Your task to perform on an android device: move a message to another label in the gmail app Image 0: 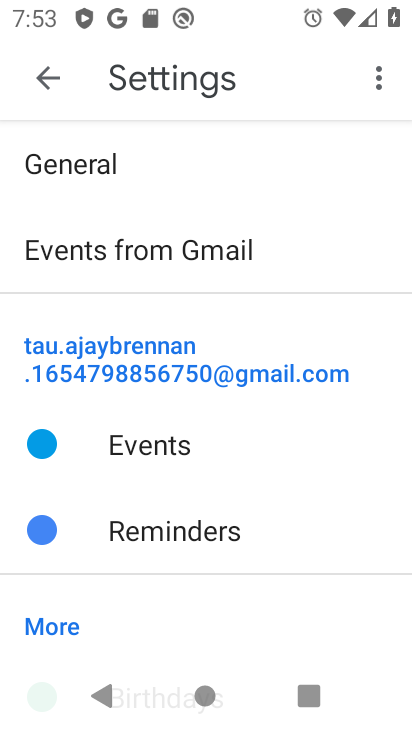
Step 0: press home button
Your task to perform on an android device: move a message to another label in the gmail app Image 1: 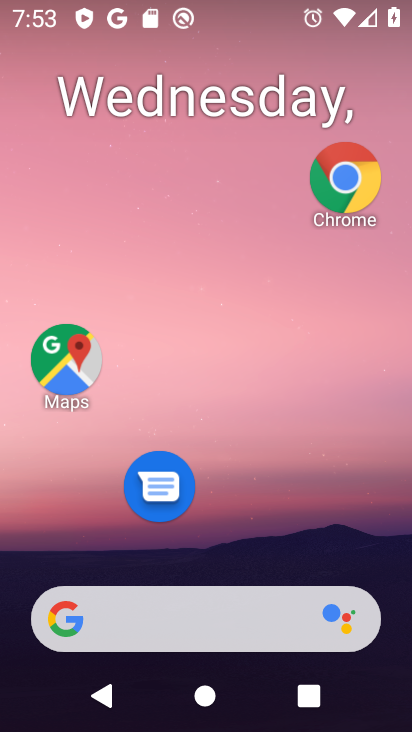
Step 1: drag from (274, 592) to (281, 180)
Your task to perform on an android device: move a message to another label in the gmail app Image 2: 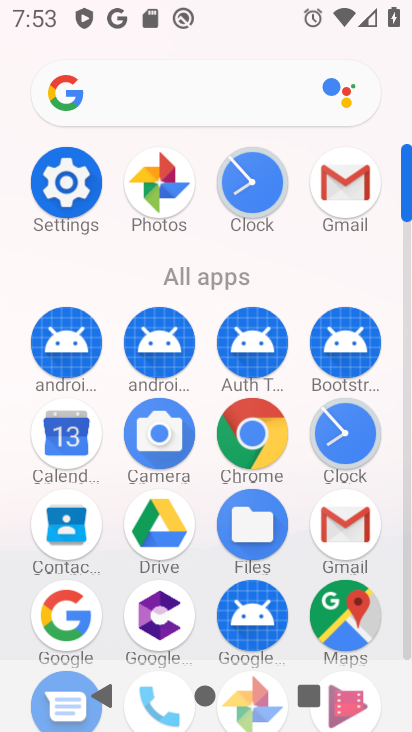
Step 2: click (353, 215)
Your task to perform on an android device: move a message to another label in the gmail app Image 3: 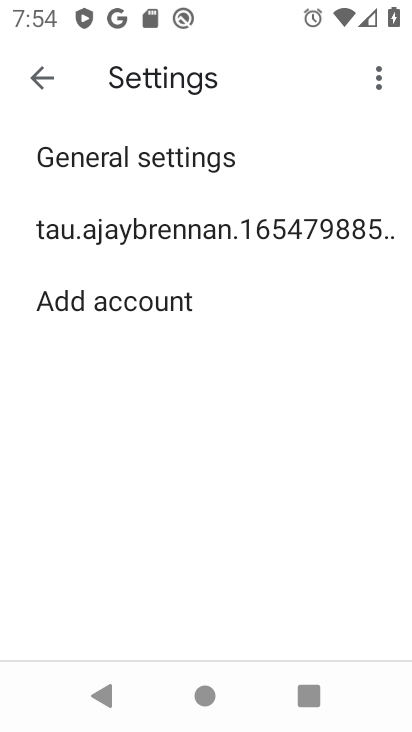
Step 3: click (43, 97)
Your task to perform on an android device: move a message to another label in the gmail app Image 4: 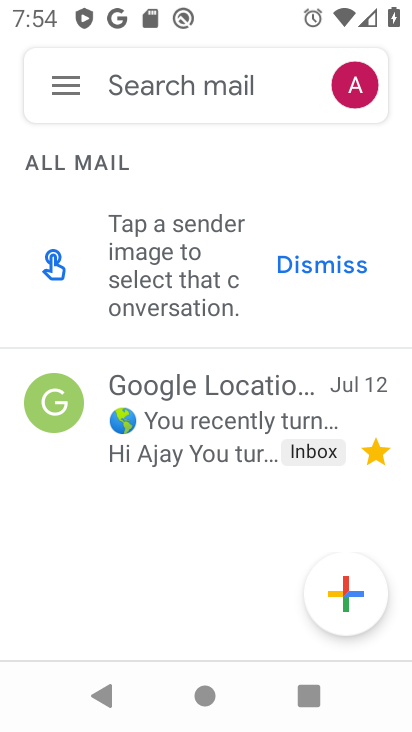
Step 4: click (116, 404)
Your task to perform on an android device: move a message to another label in the gmail app Image 5: 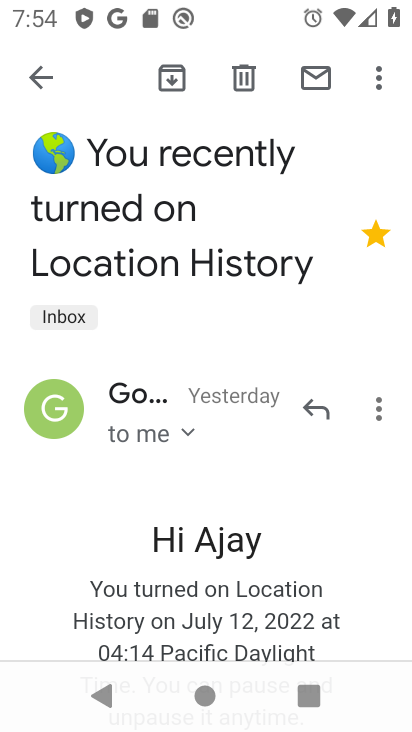
Step 5: click (378, 82)
Your task to perform on an android device: move a message to another label in the gmail app Image 6: 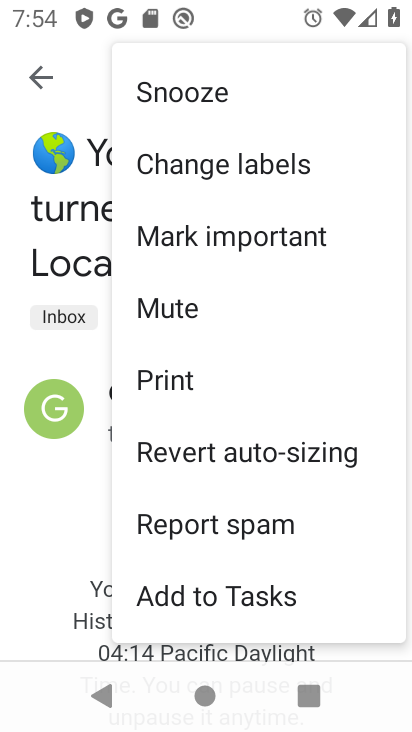
Step 6: click (249, 180)
Your task to perform on an android device: move a message to another label in the gmail app Image 7: 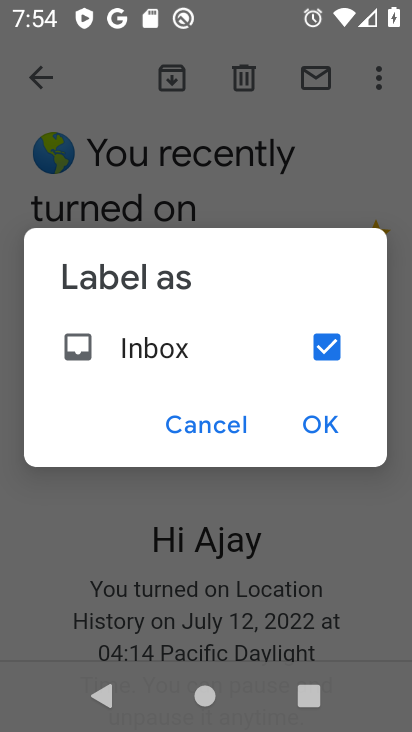
Step 7: click (311, 427)
Your task to perform on an android device: move a message to another label in the gmail app Image 8: 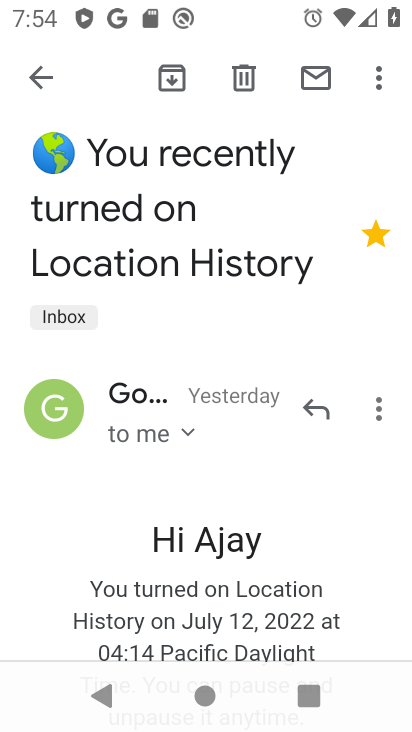
Step 8: task complete